Your task to perform on an android device: open sync settings in chrome Image 0: 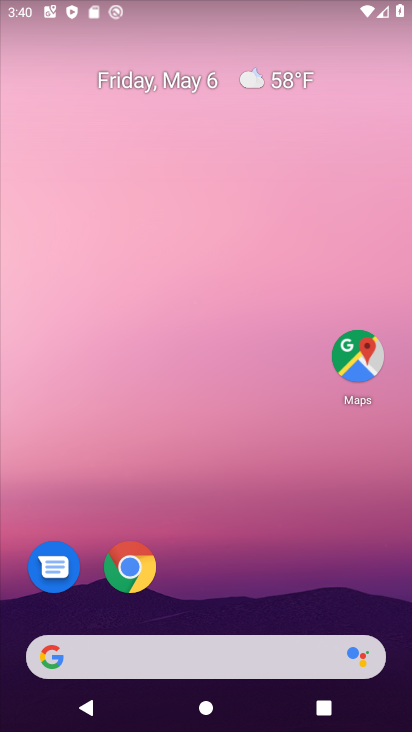
Step 0: click (364, 349)
Your task to perform on an android device: open sync settings in chrome Image 1: 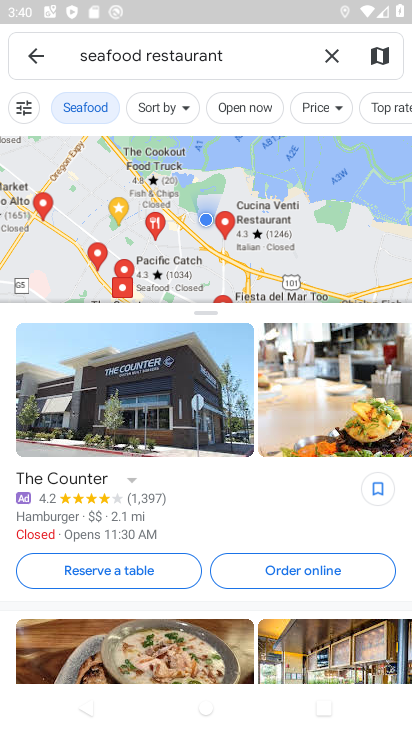
Step 1: press home button
Your task to perform on an android device: open sync settings in chrome Image 2: 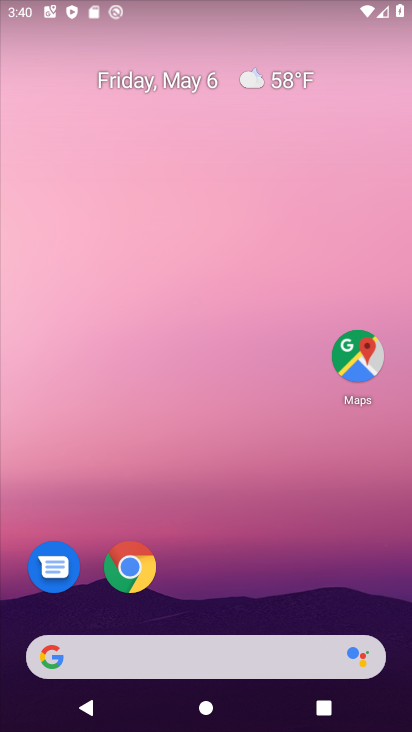
Step 2: click (135, 564)
Your task to perform on an android device: open sync settings in chrome Image 3: 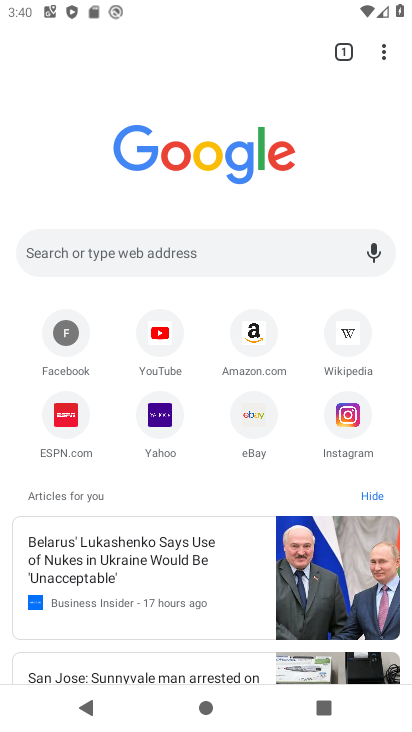
Step 3: drag from (388, 56) to (211, 439)
Your task to perform on an android device: open sync settings in chrome Image 4: 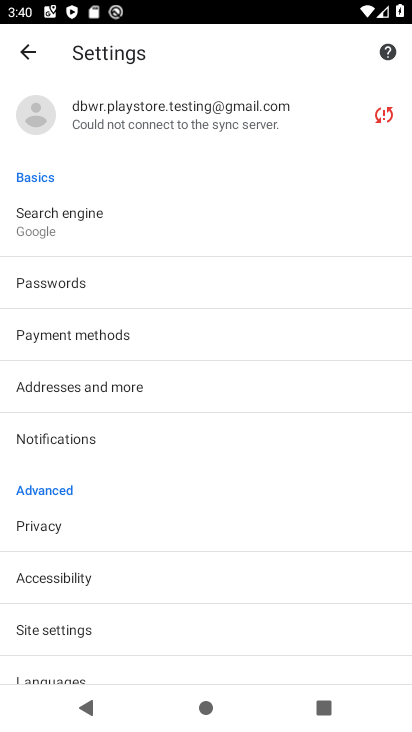
Step 4: click (126, 128)
Your task to perform on an android device: open sync settings in chrome Image 5: 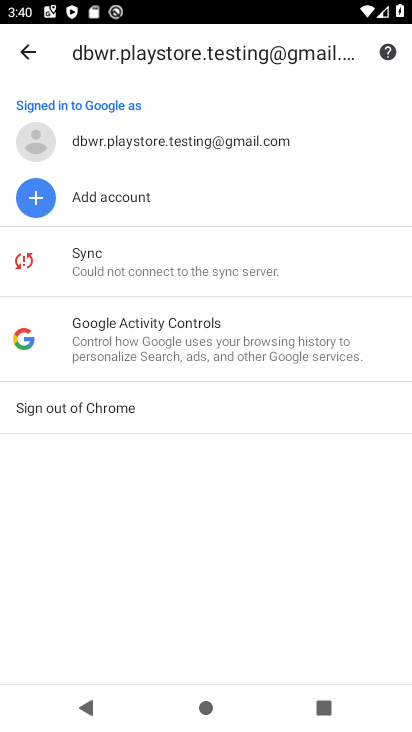
Step 5: click (129, 263)
Your task to perform on an android device: open sync settings in chrome Image 6: 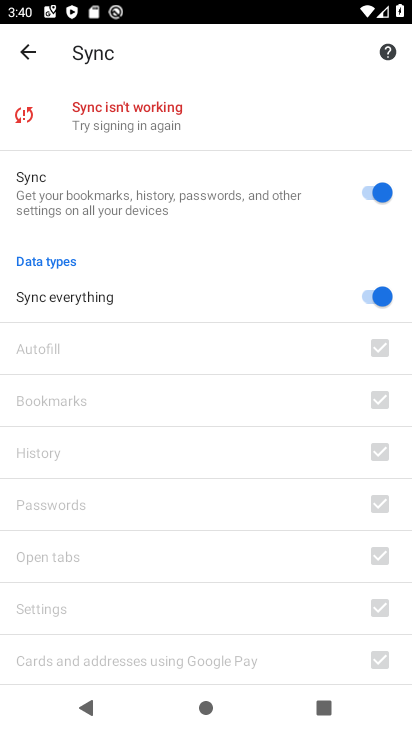
Step 6: task complete